Your task to perform on an android device: change text size in settings app Image 0: 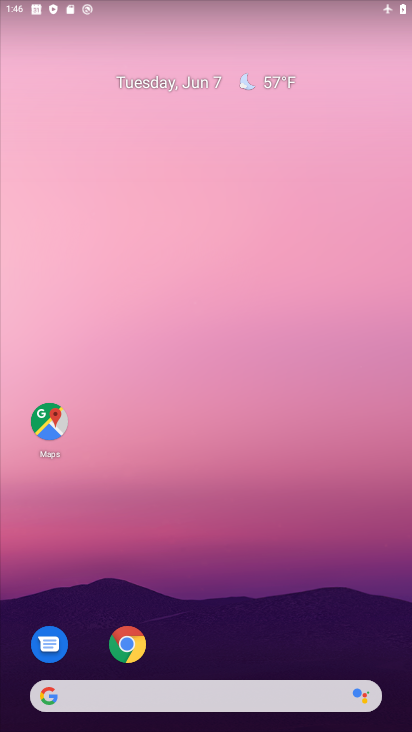
Step 0: drag from (231, 660) to (239, 196)
Your task to perform on an android device: change text size in settings app Image 1: 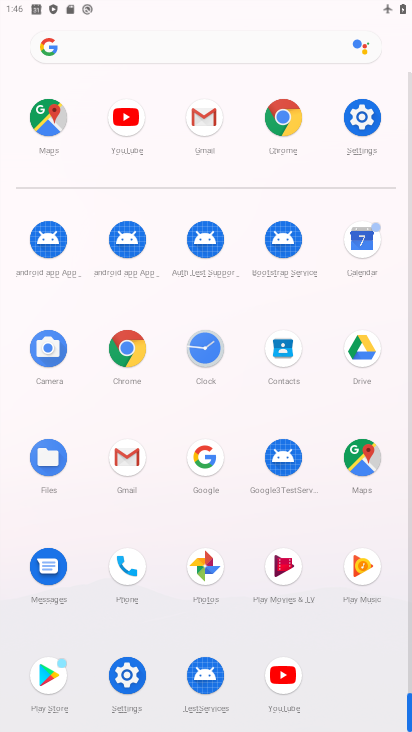
Step 1: click (362, 124)
Your task to perform on an android device: change text size in settings app Image 2: 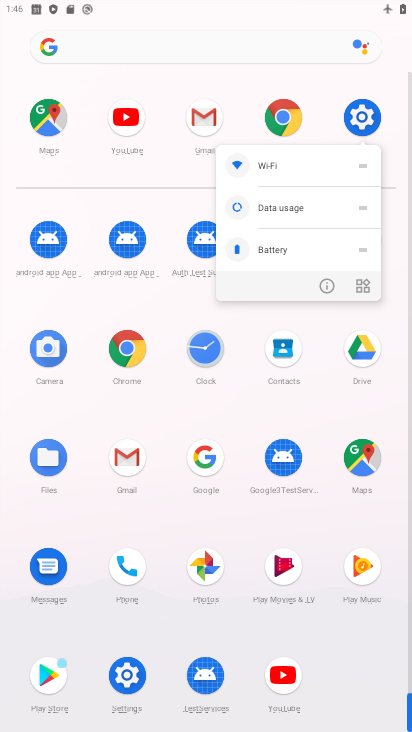
Step 2: click (355, 124)
Your task to perform on an android device: change text size in settings app Image 3: 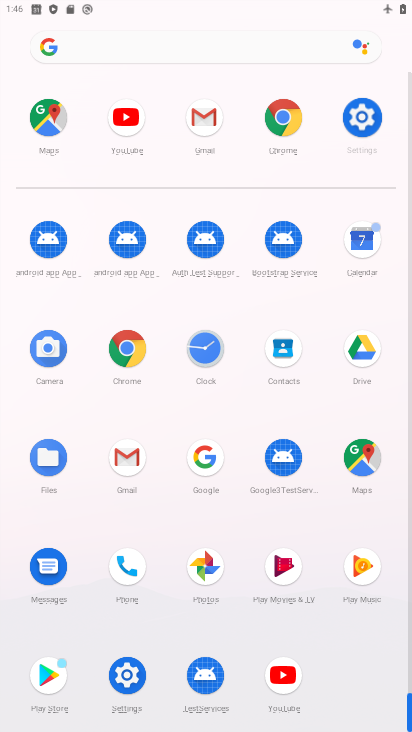
Step 3: click (357, 121)
Your task to perform on an android device: change text size in settings app Image 4: 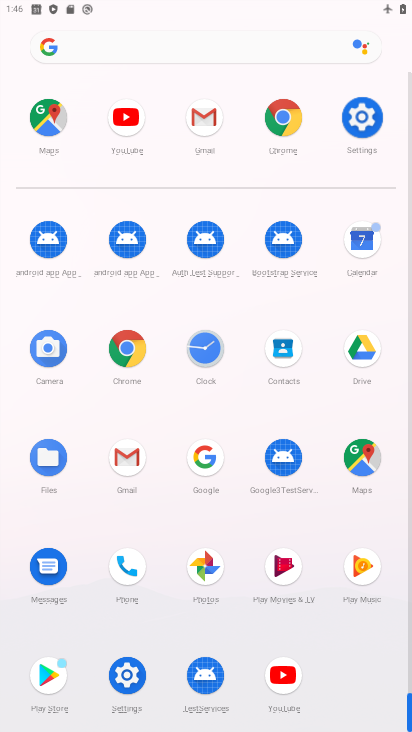
Step 4: click (357, 121)
Your task to perform on an android device: change text size in settings app Image 5: 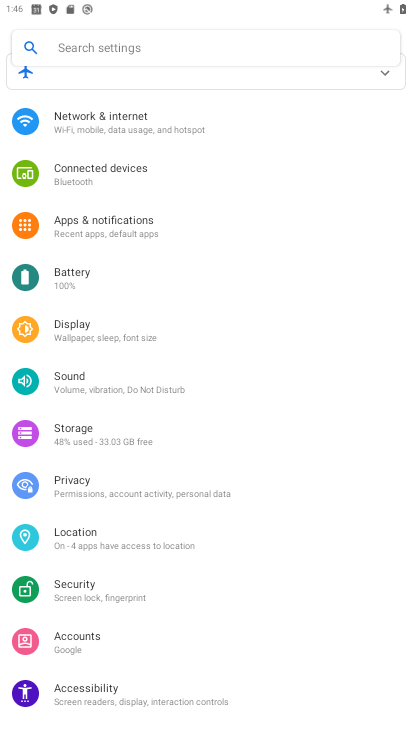
Step 5: click (355, 119)
Your task to perform on an android device: change text size in settings app Image 6: 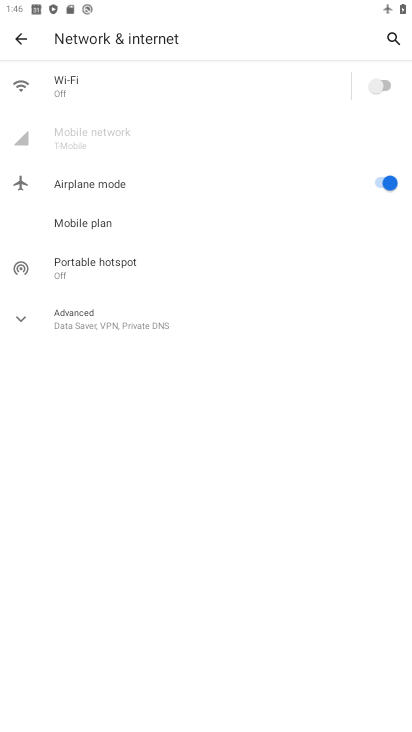
Step 6: click (19, 36)
Your task to perform on an android device: change text size in settings app Image 7: 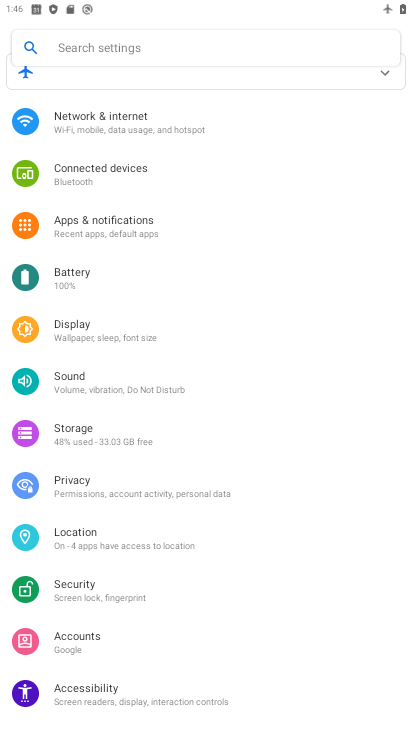
Step 7: click (94, 332)
Your task to perform on an android device: change text size in settings app Image 8: 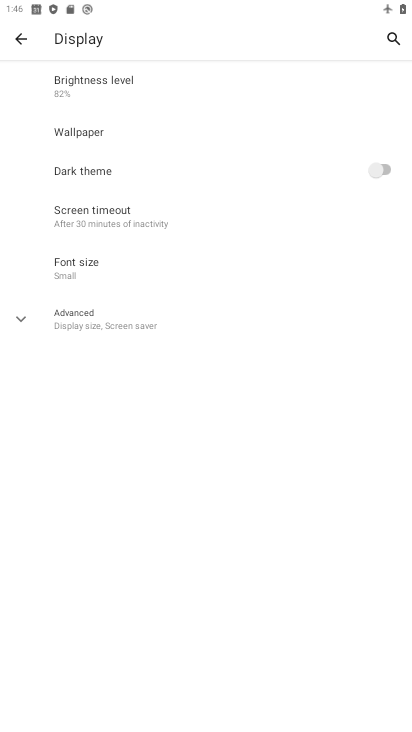
Step 8: click (64, 262)
Your task to perform on an android device: change text size in settings app Image 9: 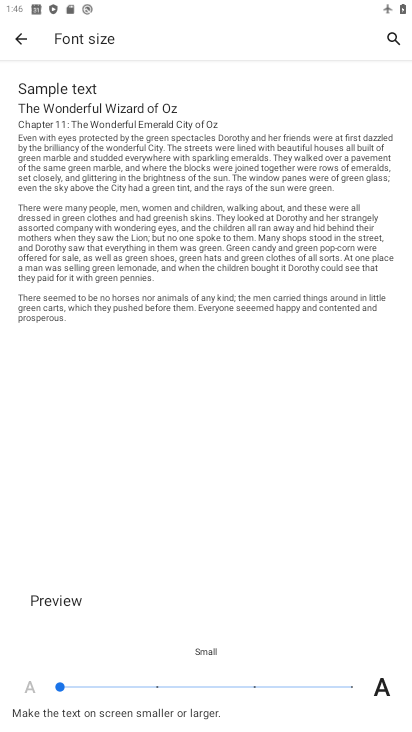
Step 9: click (153, 686)
Your task to perform on an android device: change text size in settings app Image 10: 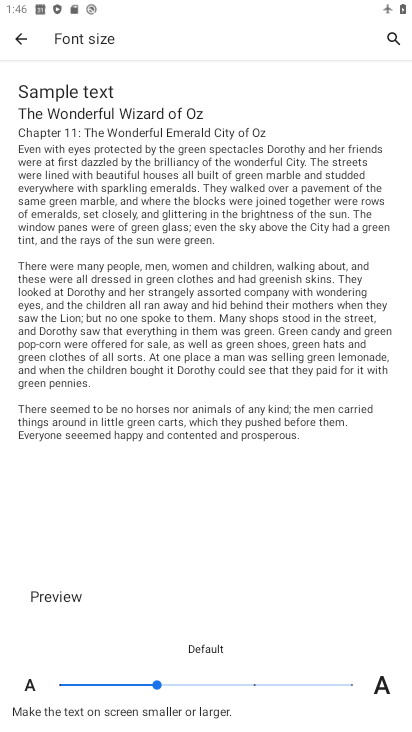
Step 10: click (250, 687)
Your task to perform on an android device: change text size in settings app Image 11: 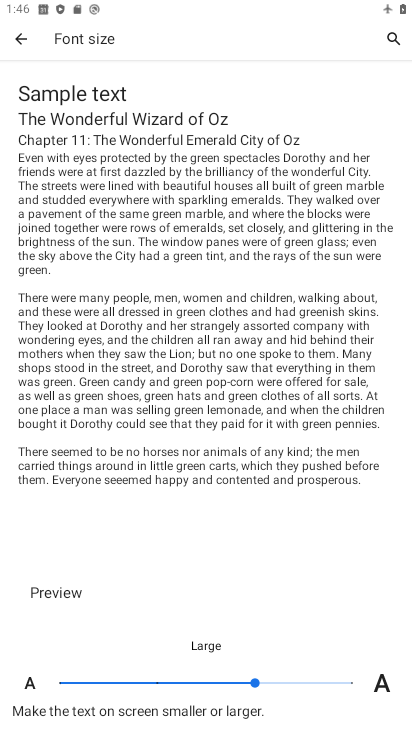
Step 11: task complete